Your task to perform on an android device: Open Youtube and go to the subscriptions tab Image 0: 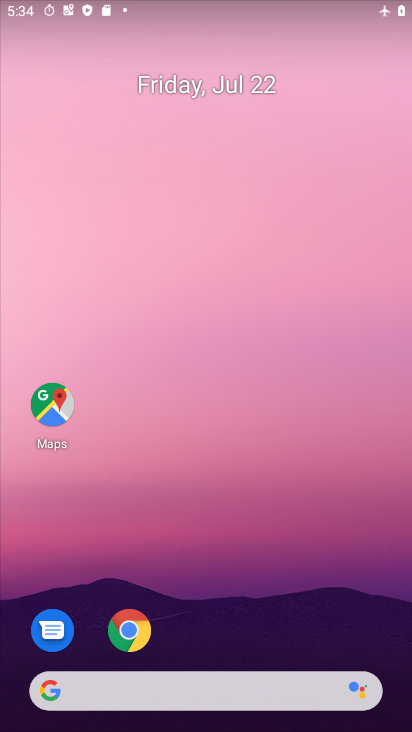
Step 0: drag from (156, 709) to (346, 7)
Your task to perform on an android device: Open Youtube and go to the subscriptions tab Image 1: 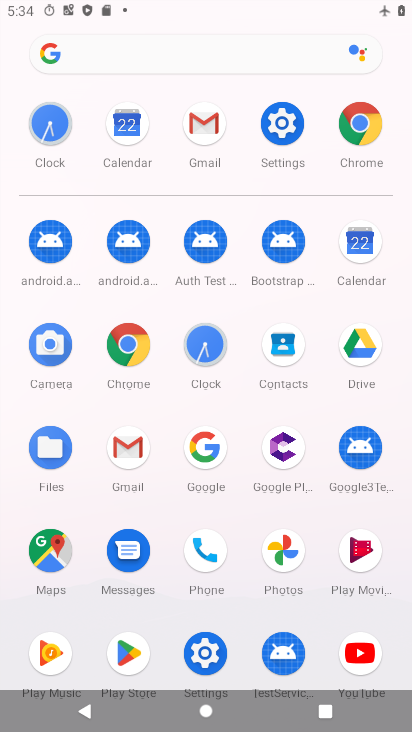
Step 1: click (352, 659)
Your task to perform on an android device: Open Youtube and go to the subscriptions tab Image 2: 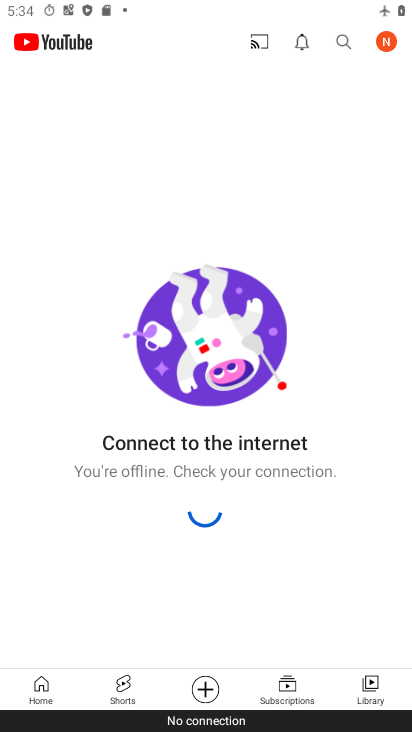
Step 2: click (284, 689)
Your task to perform on an android device: Open Youtube and go to the subscriptions tab Image 3: 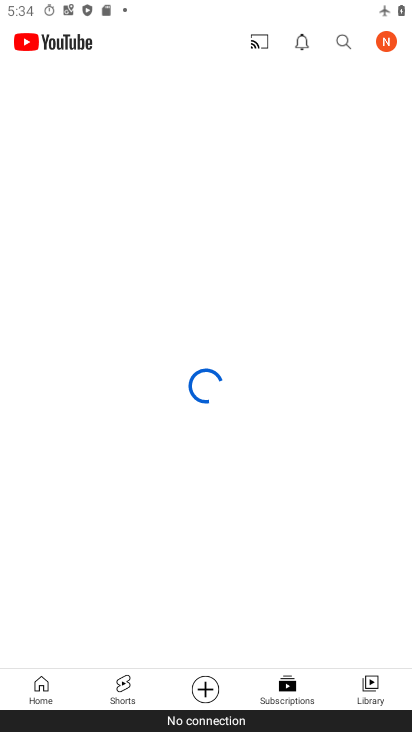
Step 3: task complete